Your task to perform on an android device: open chrome and create a bookmark for the current page Image 0: 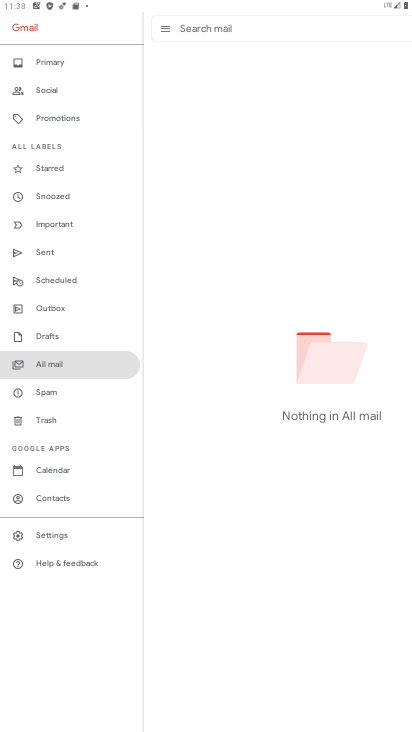
Step 0: press home button
Your task to perform on an android device: open chrome and create a bookmark for the current page Image 1: 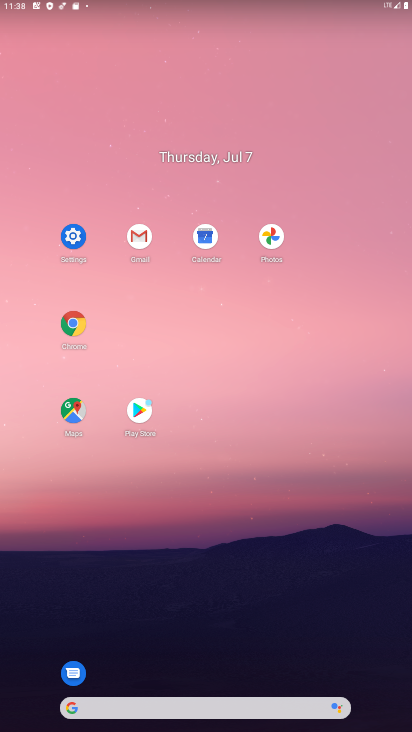
Step 1: click (67, 324)
Your task to perform on an android device: open chrome and create a bookmark for the current page Image 2: 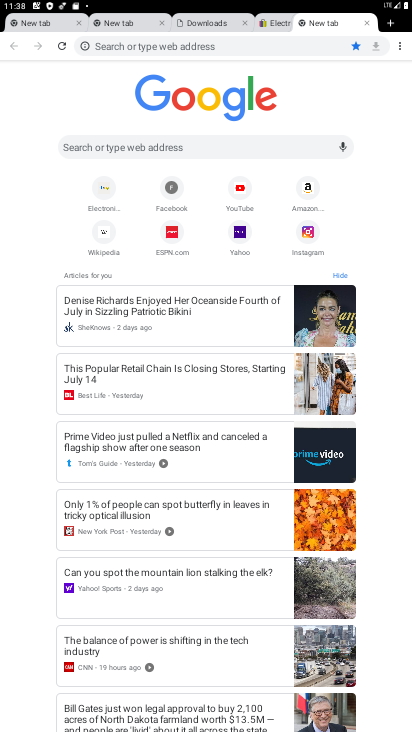
Step 2: click (399, 51)
Your task to perform on an android device: open chrome and create a bookmark for the current page Image 3: 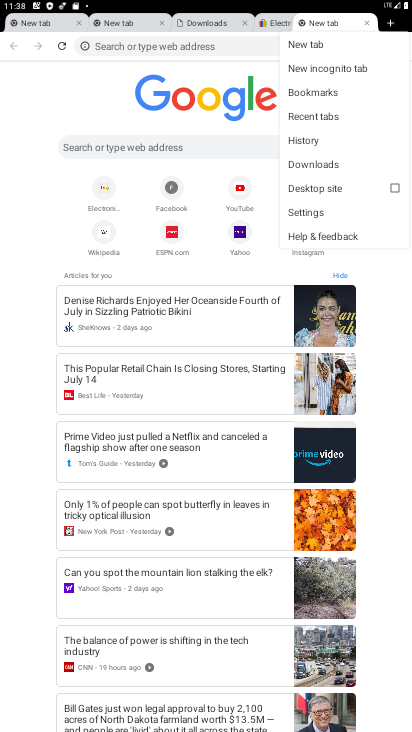
Step 3: click (247, 67)
Your task to perform on an android device: open chrome and create a bookmark for the current page Image 4: 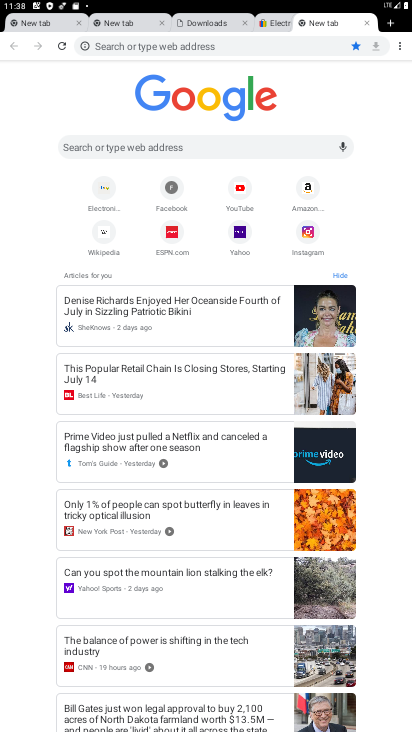
Step 4: click (267, 16)
Your task to perform on an android device: open chrome and create a bookmark for the current page Image 5: 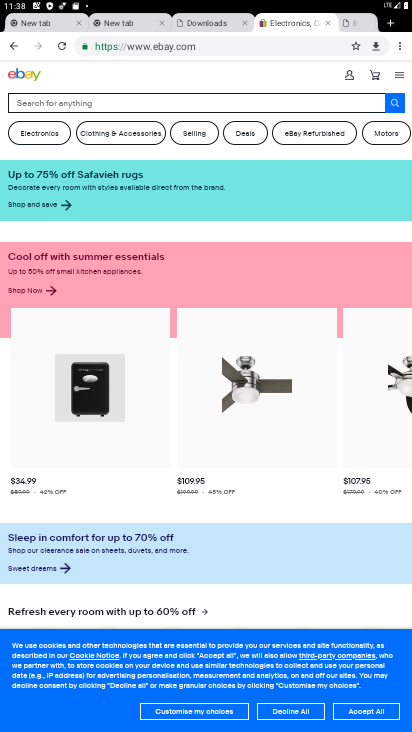
Step 5: click (354, 42)
Your task to perform on an android device: open chrome and create a bookmark for the current page Image 6: 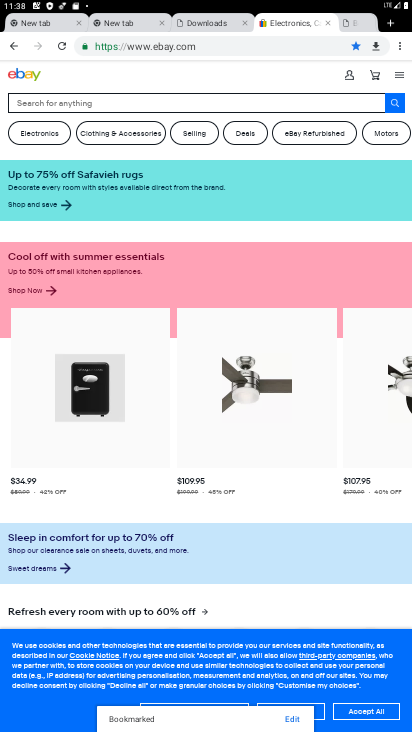
Step 6: task complete